Your task to perform on an android device: turn on bluetooth scan Image 0: 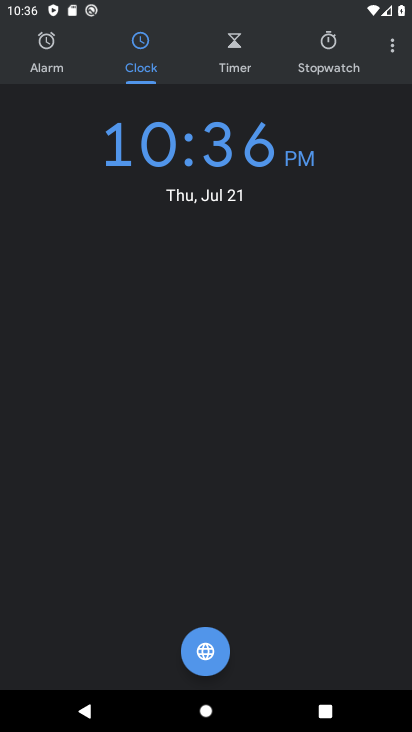
Step 0: press home button
Your task to perform on an android device: turn on bluetooth scan Image 1: 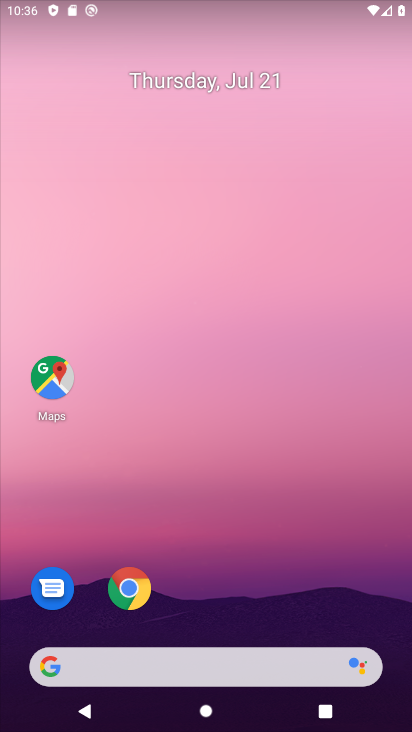
Step 1: drag from (287, 501) to (267, 3)
Your task to perform on an android device: turn on bluetooth scan Image 2: 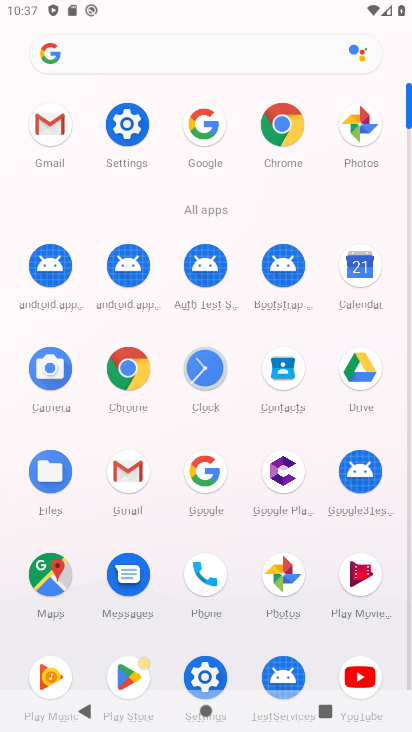
Step 2: click (133, 128)
Your task to perform on an android device: turn on bluetooth scan Image 3: 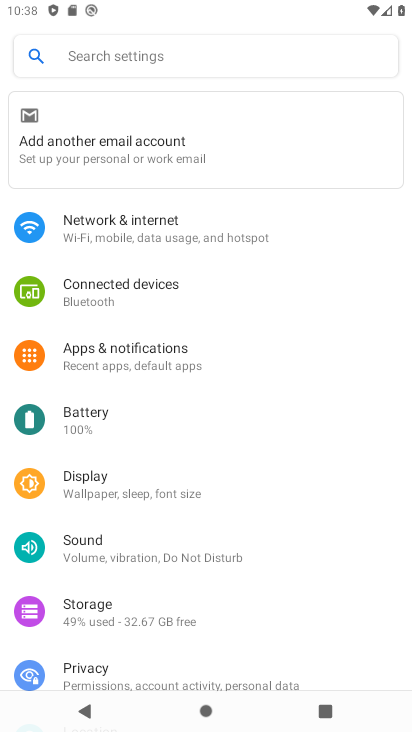
Step 3: drag from (236, 614) to (216, 241)
Your task to perform on an android device: turn on bluetooth scan Image 4: 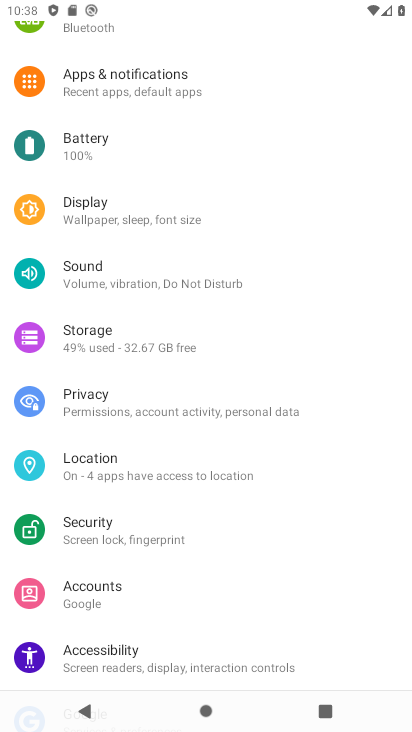
Step 4: click (127, 467)
Your task to perform on an android device: turn on bluetooth scan Image 5: 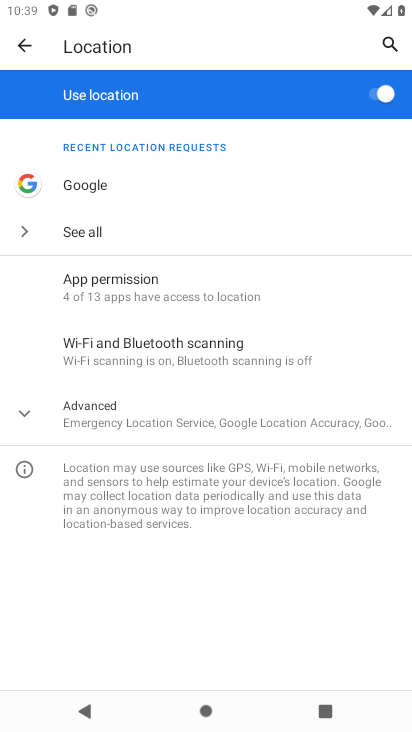
Step 5: click (206, 343)
Your task to perform on an android device: turn on bluetooth scan Image 6: 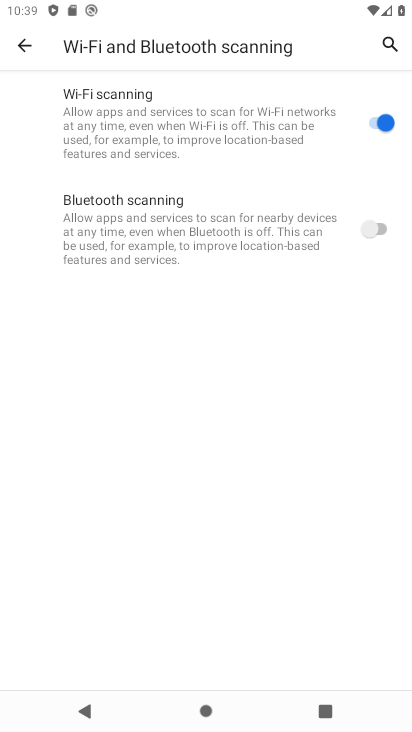
Step 6: click (367, 238)
Your task to perform on an android device: turn on bluetooth scan Image 7: 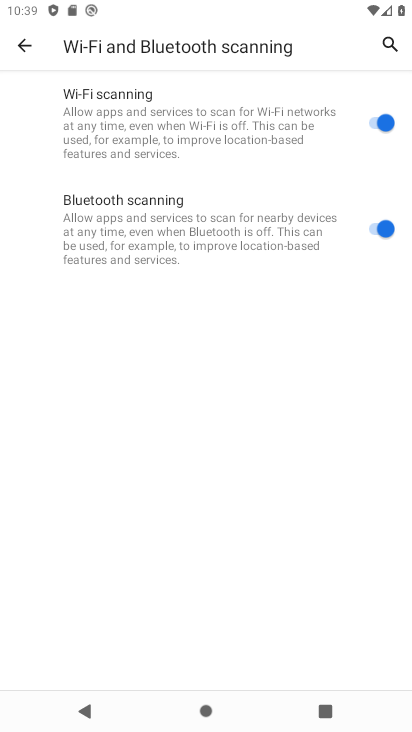
Step 7: task complete